Your task to perform on an android device: Check the news Image 0: 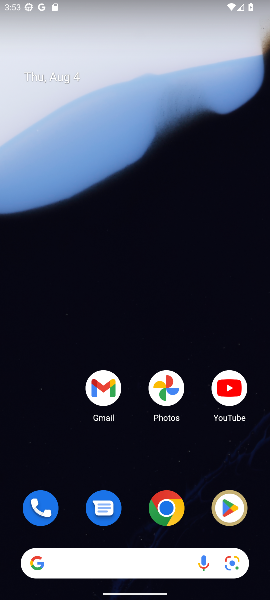
Step 0: click (109, 563)
Your task to perform on an android device: Check the news Image 1: 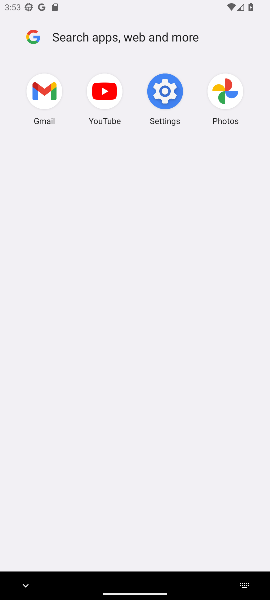
Step 1: type "news"
Your task to perform on an android device: Check the news Image 2: 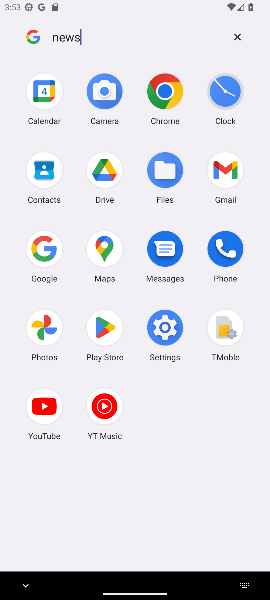
Step 2: type ""
Your task to perform on an android device: Check the news Image 3: 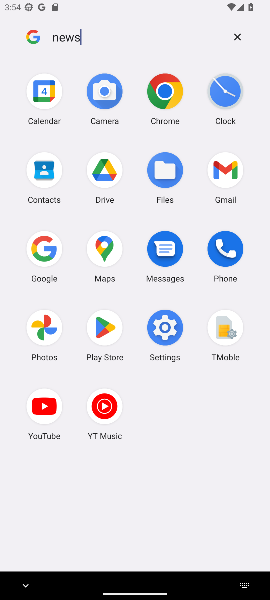
Step 3: click (238, 38)
Your task to perform on an android device: Check the news Image 4: 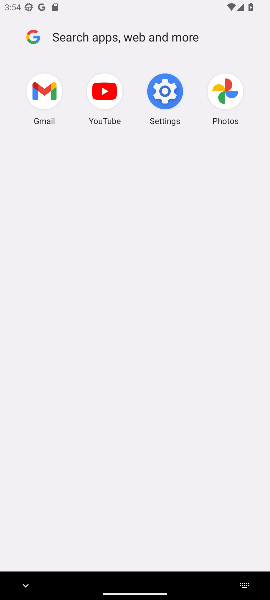
Step 4: type "news"
Your task to perform on an android device: Check the news Image 5: 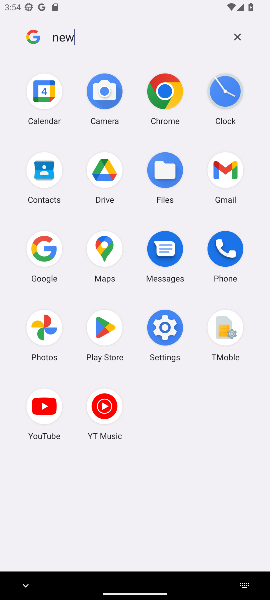
Step 5: type ""
Your task to perform on an android device: Check the news Image 6: 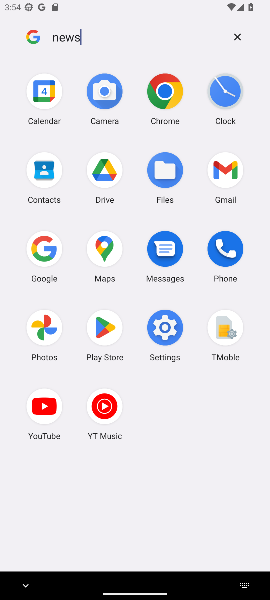
Step 6: click (161, 94)
Your task to perform on an android device: Check the news Image 7: 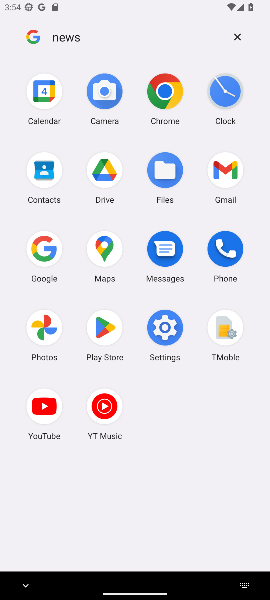
Step 7: click (161, 94)
Your task to perform on an android device: Check the news Image 8: 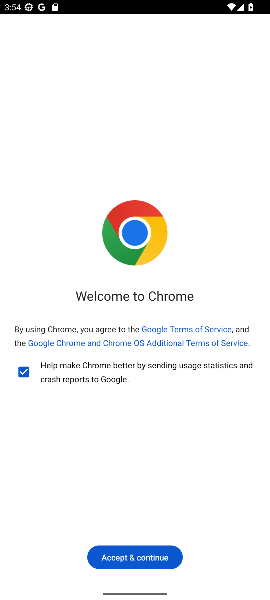
Step 8: click (127, 560)
Your task to perform on an android device: Check the news Image 9: 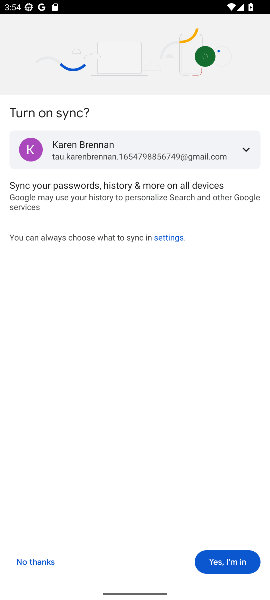
Step 9: click (222, 564)
Your task to perform on an android device: Check the news Image 10: 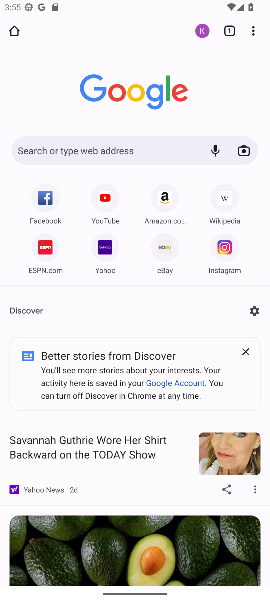
Step 10: drag from (113, 451) to (240, 596)
Your task to perform on an android device: Check the news Image 11: 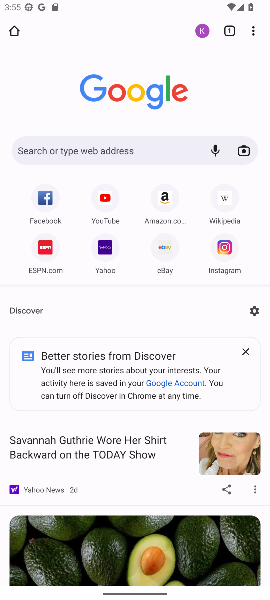
Step 11: click (77, 151)
Your task to perform on an android device: Check the news Image 12: 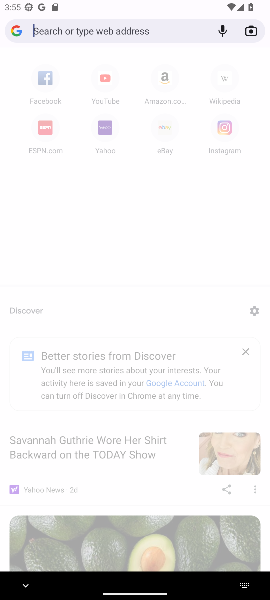
Step 12: type "news"
Your task to perform on an android device: Check the news Image 13: 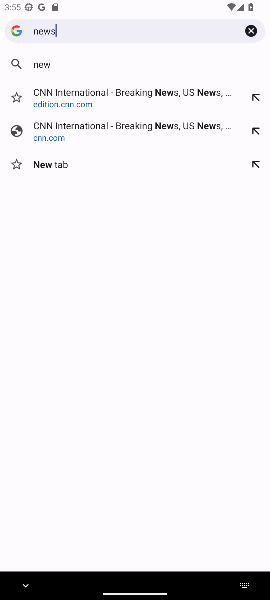
Step 13: type ""
Your task to perform on an android device: Check the news Image 14: 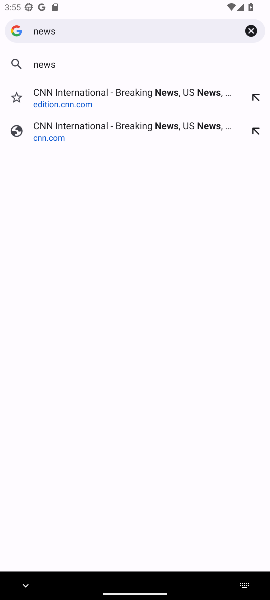
Step 14: click (56, 67)
Your task to perform on an android device: Check the news Image 15: 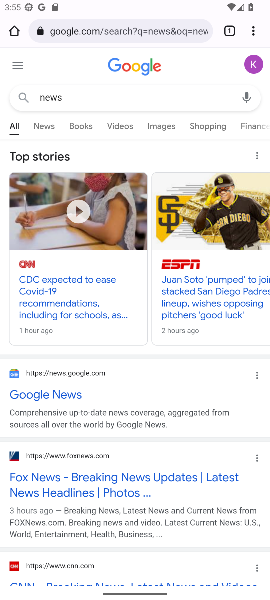
Step 15: task complete